Your task to perform on an android device: Open internet settings Image 0: 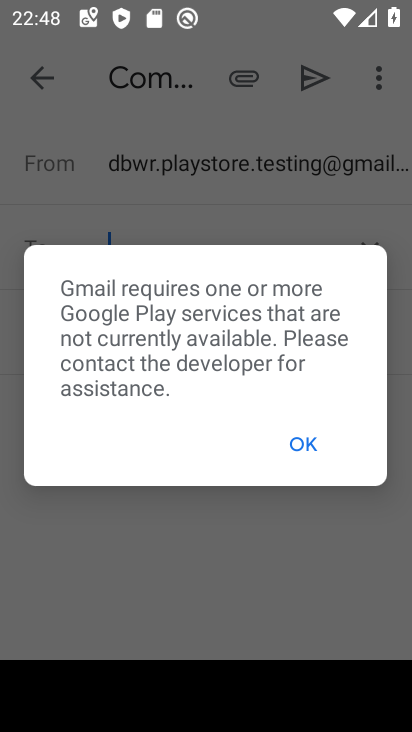
Step 0: press home button
Your task to perform on an android device: Open internet settings Image 1: 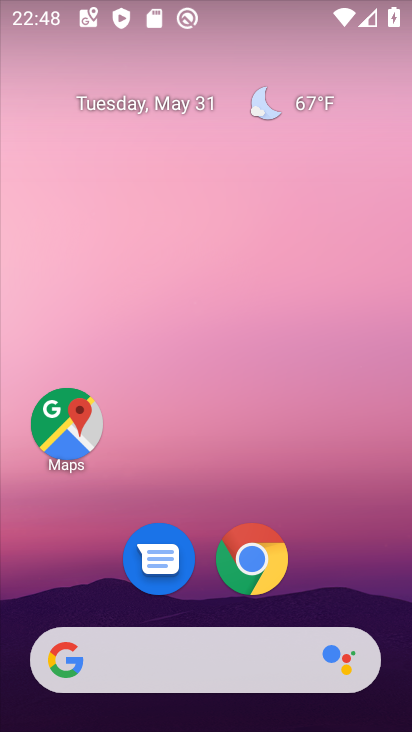
Step 1: drag from (331, 583) to (340, 84)
Your task to perform on an android device: Open internet settings Image 2: 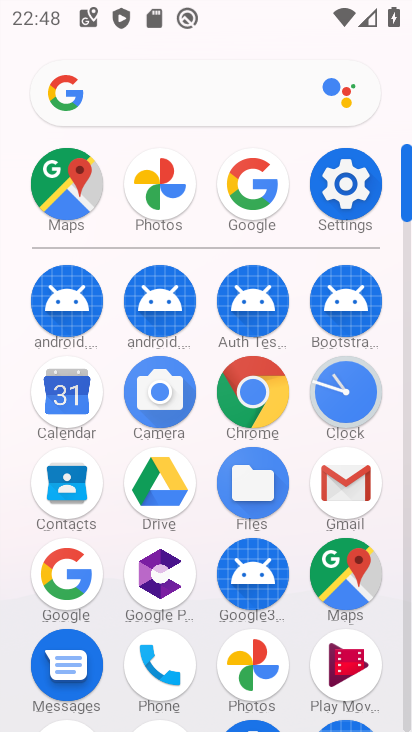
Step 2: click (349, 182)
Your task to perform on an android device: Open internet settings Image 3: 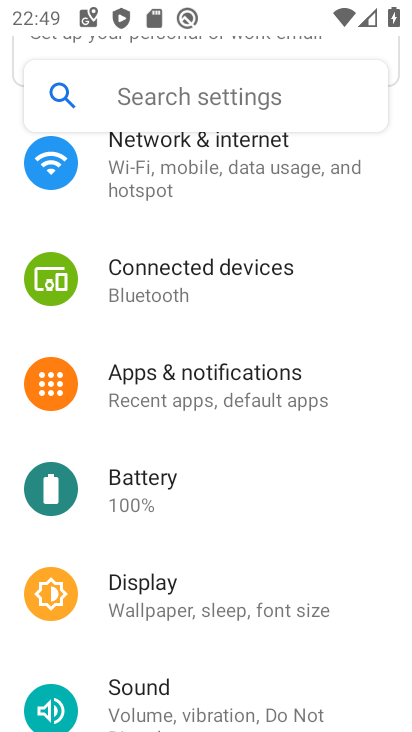
Step 3: click (173, 171)
Your task to perform on an android device: Open internet settings Image 4: 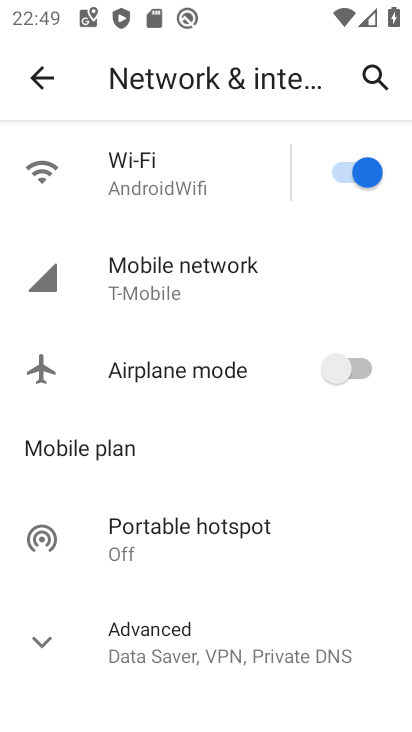
Step 4: click (166, 177)
Your task to perform on an android device: Open internet settings Image 5: 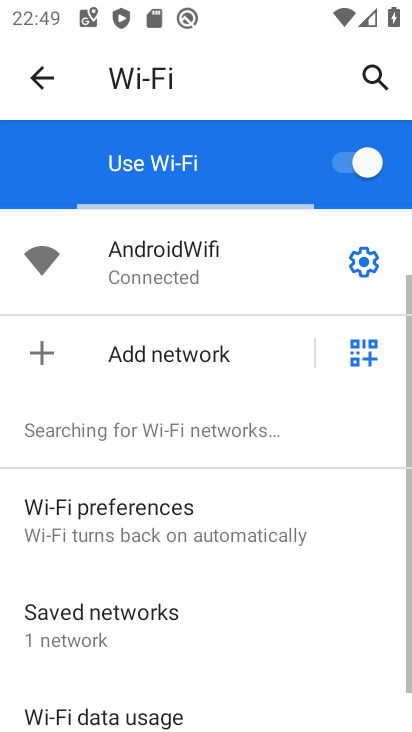
Step 5: click (200, 266)
Your task to perform on an android device: Open internet settings Image 6: 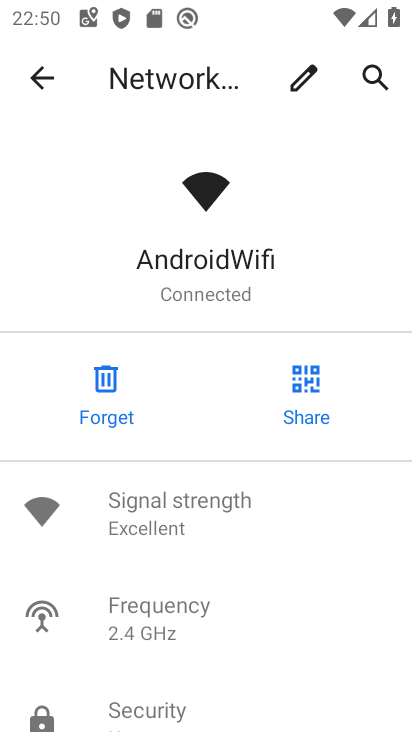
Step 6: task complete